Your task to perform on an android device: uninstall "Mercado Libre" Image 0: 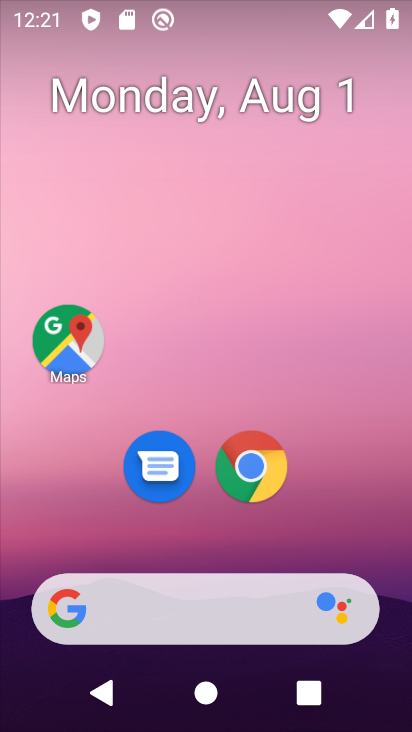
Step 0: drag from (220, 204) to (143, 13)
Your task to perform on an android device: uninstall "Mercado Libre" Image 1: 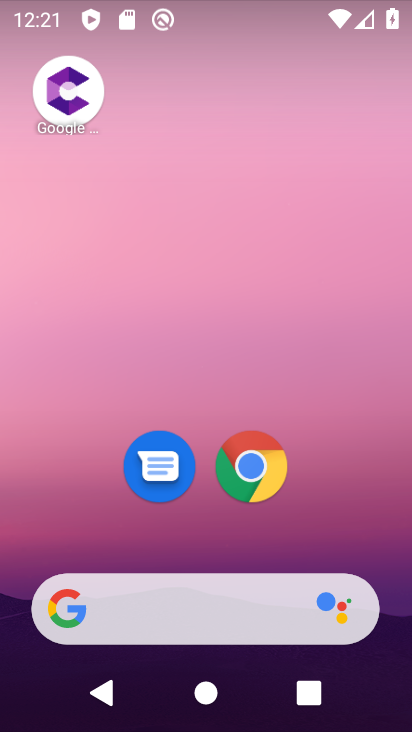
Step 1: drag from (209, 439) to (232, 7)
Your task to perform on an android device: uninstall "Mercado Libre" Image 2: 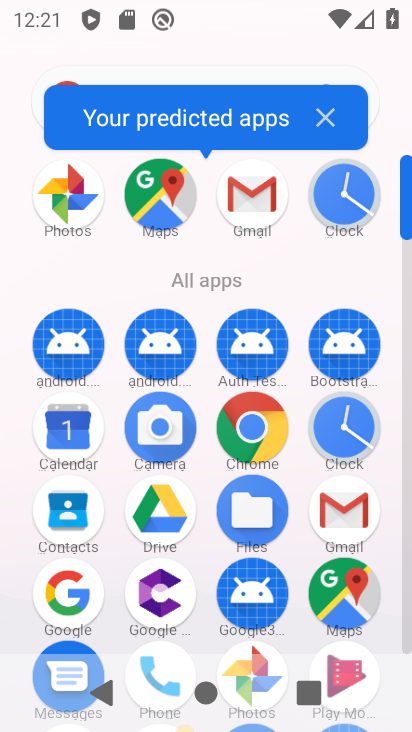
Step 2: drag from (243, 574) to (240, 159)
Your task to perform on an android device: uninstall "Mercado Libre" Image 3: 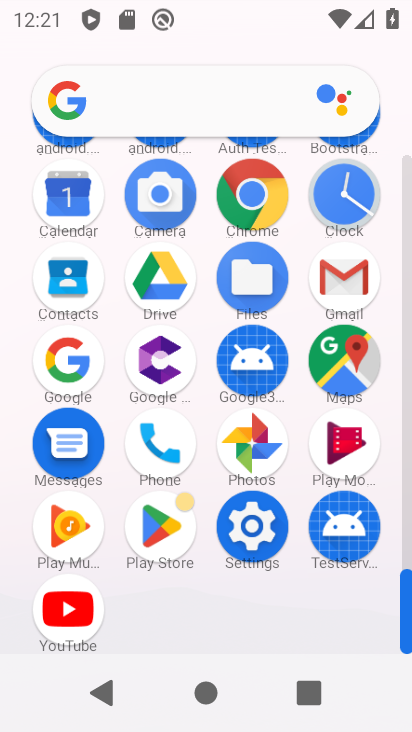
Step 3: click (166, 551)
Your task to perform on an android device: uninstall "Mercado Libre" Image 4: 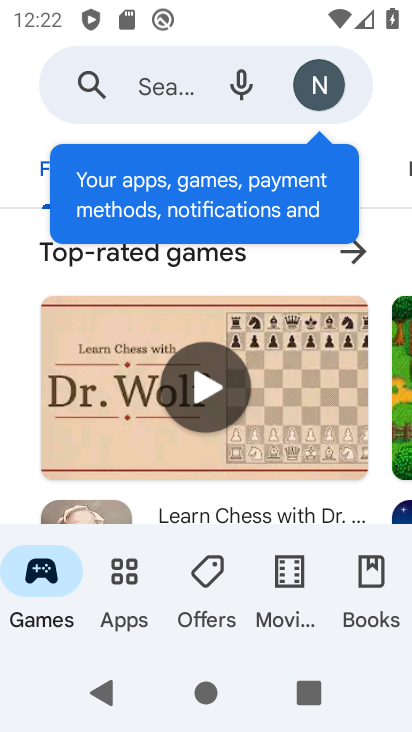
Step 4: click (179, 85)
Your task to perform on an android device: uninstall "Mercado Libre" Image 5: 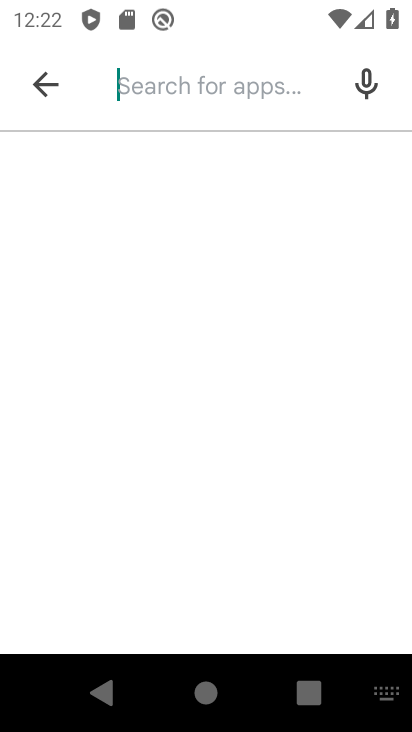
Step 5: type "mercado libre"
Your task to perform on an android device: uninstall "Mercado Libre" Image 6: 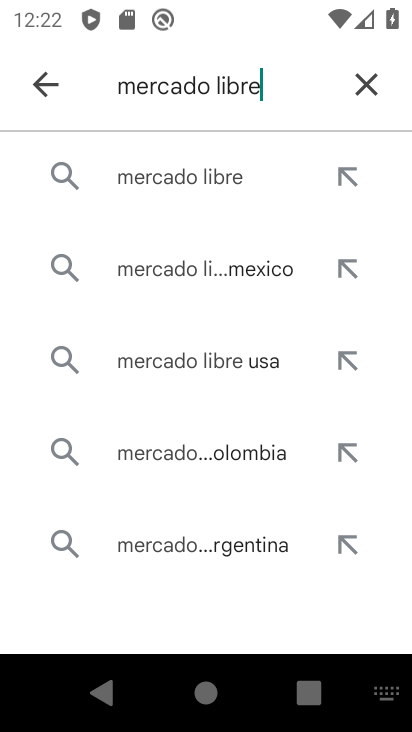
Step 6: click (210, 187)
Your task to perform on an android device: uninstall "Mercado Libre" Image 7: 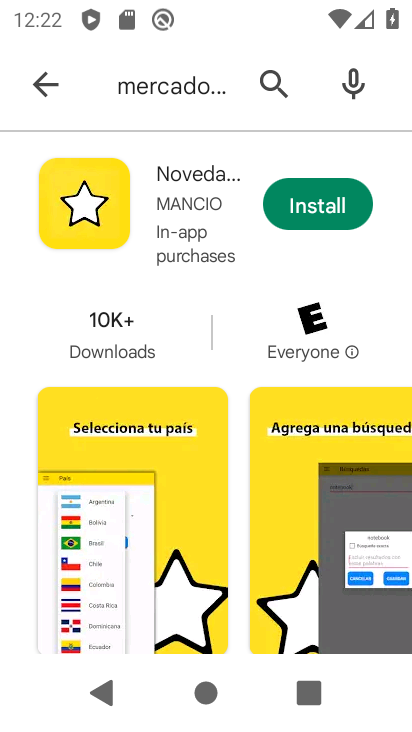
Step 7: task complete